Your task to perform on an android device: open a bookmark in the chrome app Image 0: 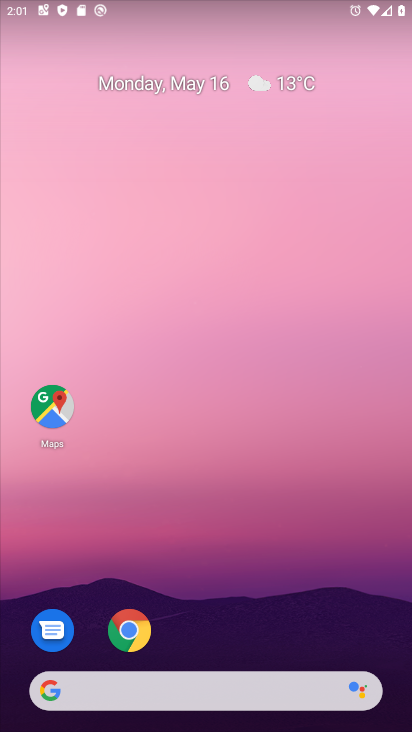
Step 0: click (128, 625)
Your task to perform on an android device: open a bookmark in the chrome app Image 1: 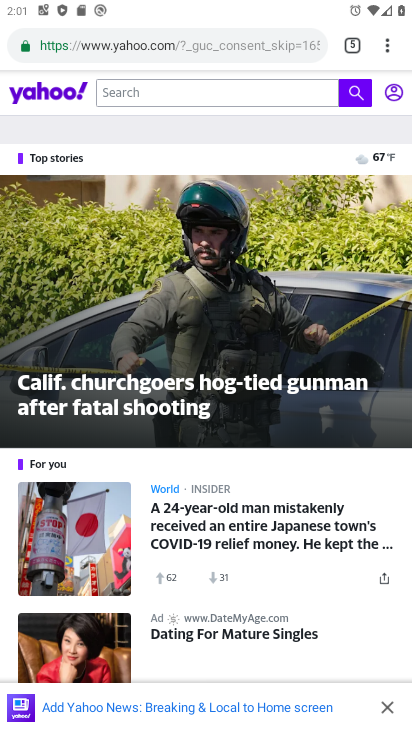
Step 1: click (386, 48)
Your task to perform on an android device: open a bookmark in the chrome app Image 2: 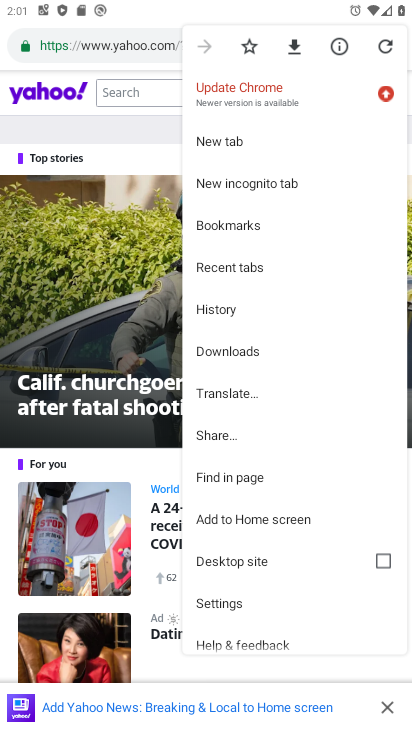
Step 2: click (284, 222)
Your task to perform on an android device: open a bookmark in the chrome app Image 3: 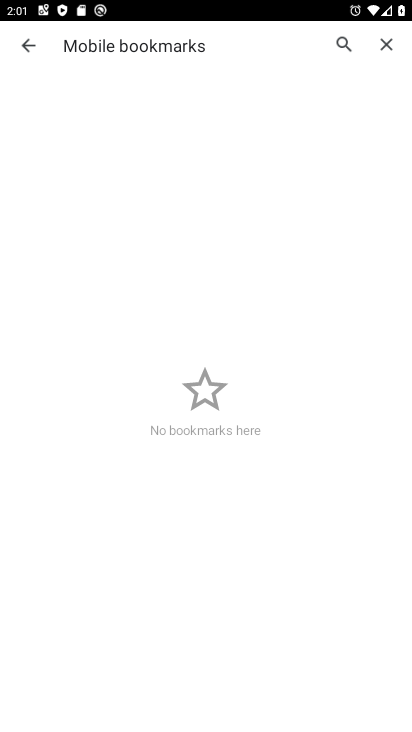
Step 3: task complete